Your task to perform on an android device: turn on javascript in the chrome app Image 0: 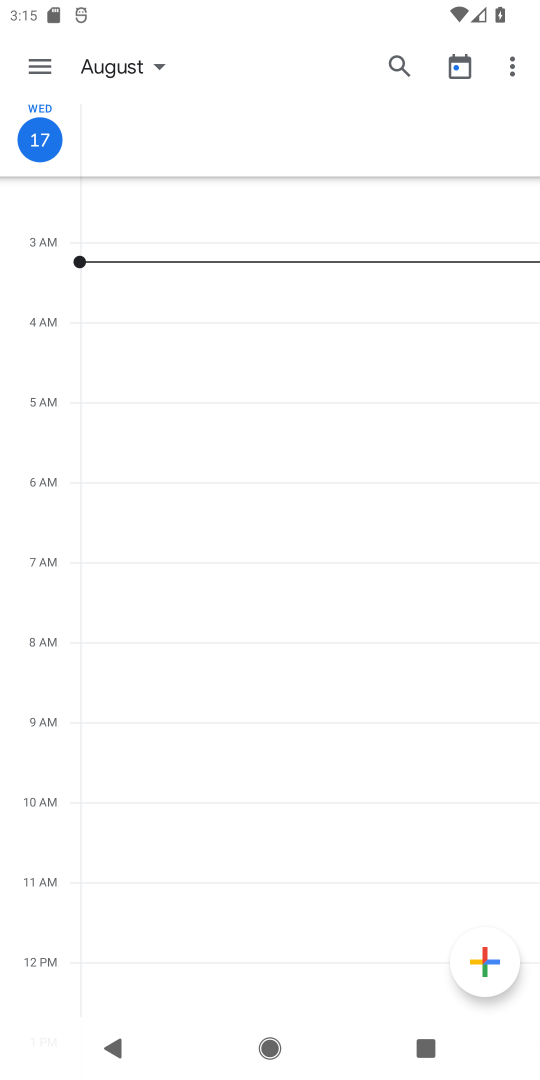
Step 0: press home button
Your task to perform on an android device: turn on javascript in the chrome app Image 1: 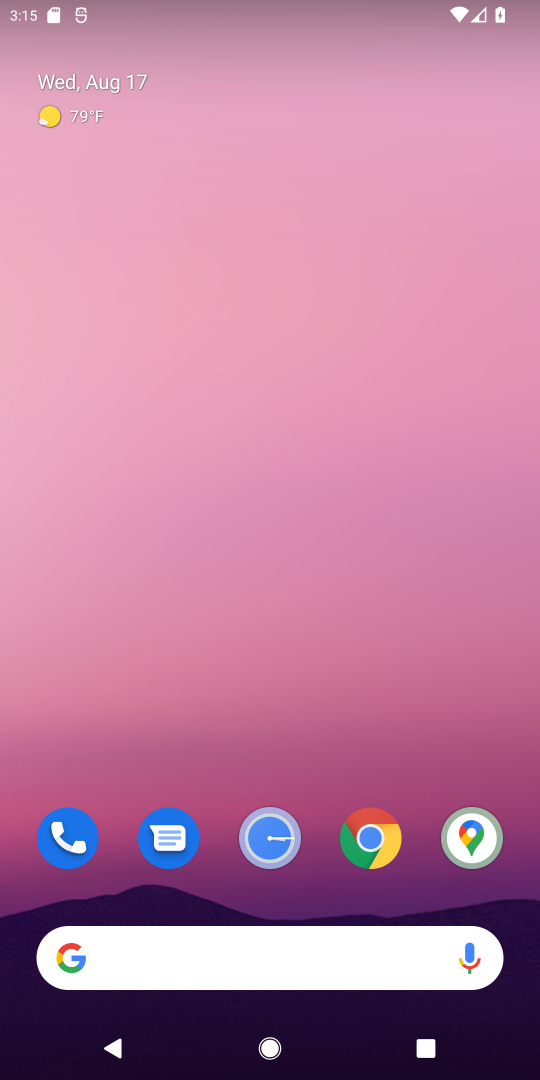
Step 1: click (340, 823)
Your task to perform on an android device: turn on javascript in the chrome app Image 2: 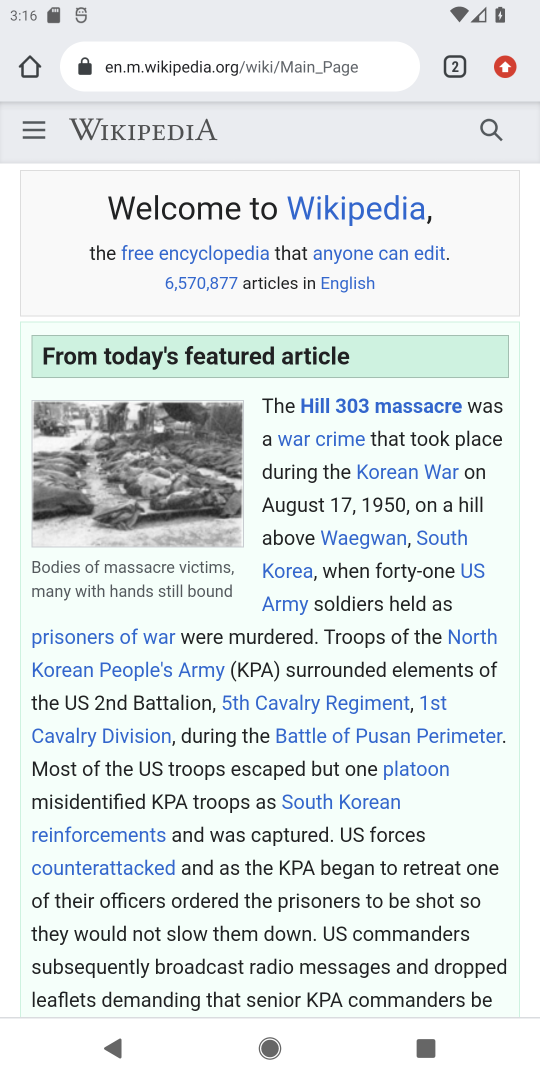
Step 2: click (507, 71)
Your task to perform on an android device: turn on javascript in the chrome app Image 3: 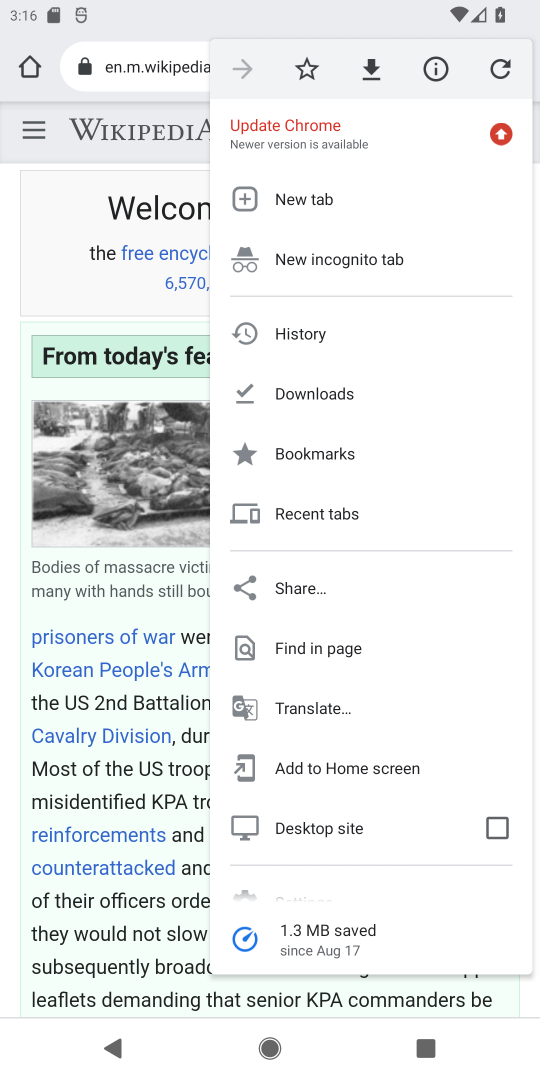
Step 3: drag from (399, 897) to (321, 448)
Your task to perform on an android device: turn on javascript in the chrome app Image 4: 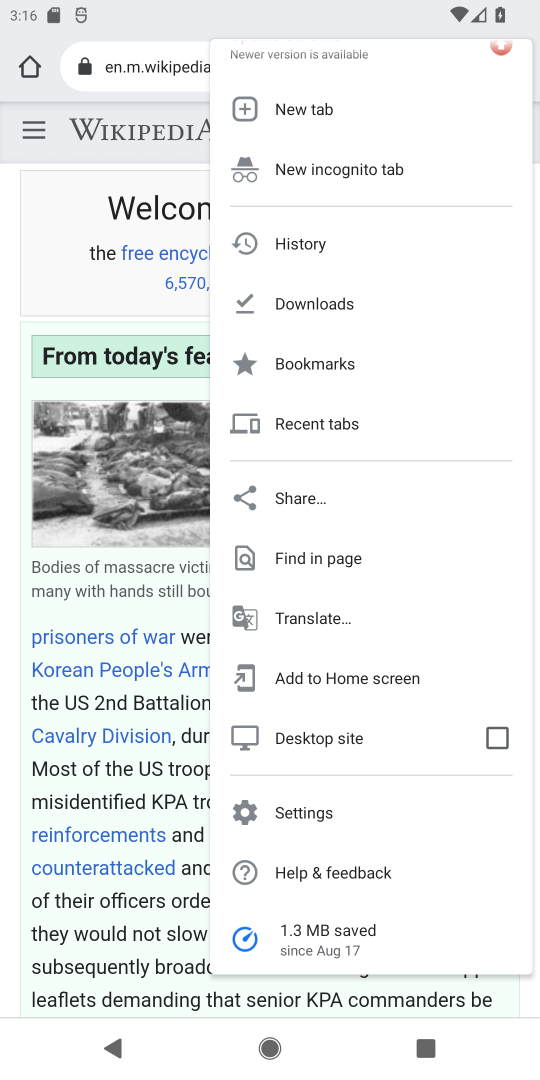
Step 4: click (313, 810)
Your task to perform on an android device: turn on javascript in the chrome app Image 5: 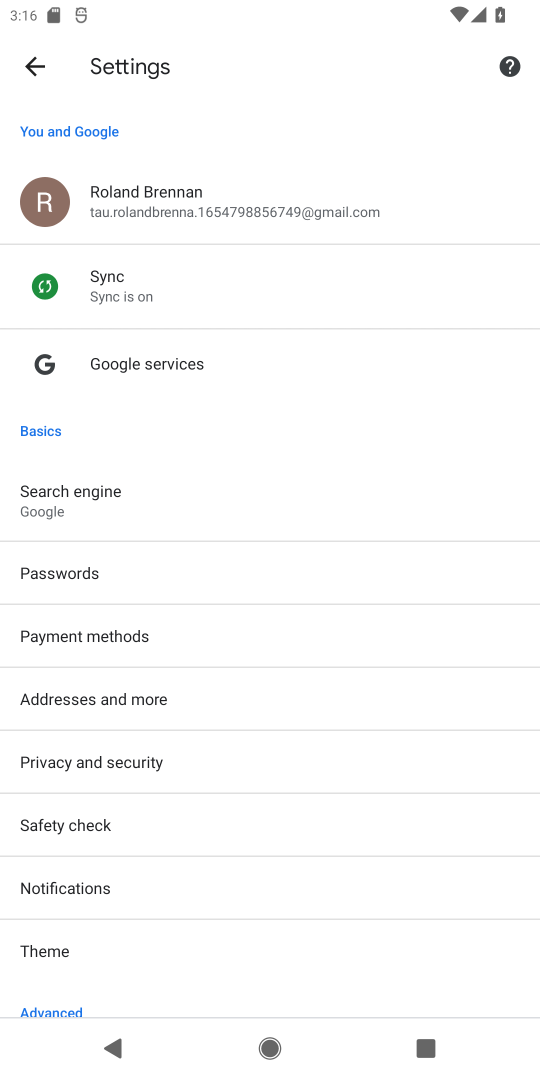
Step 5: drag from (171, 991) to (114, 501)
Your task to perform on an android device: turn on javascript in the chrome app Image 6: 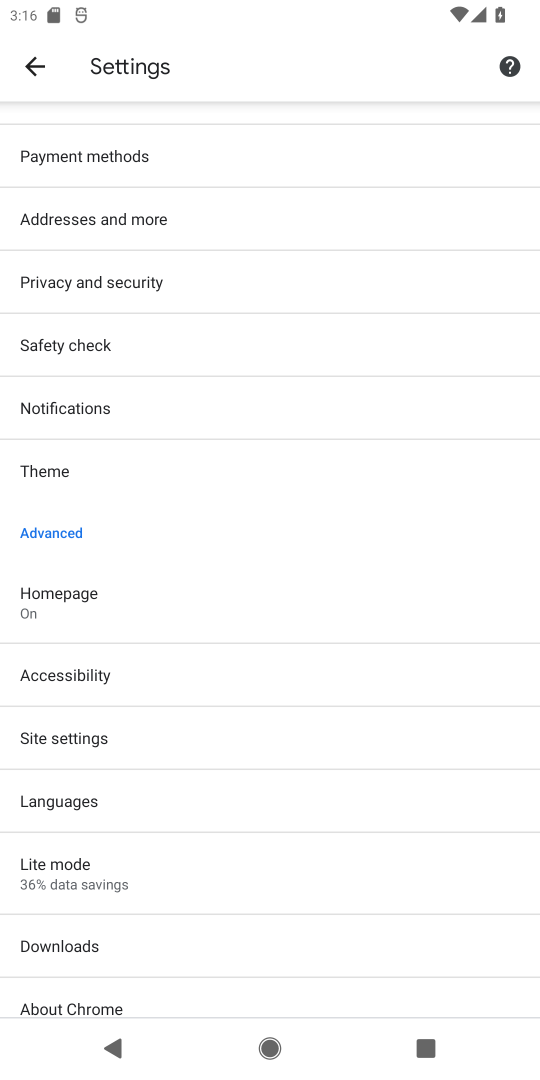
Step 6: click (95, 725)
Your task to perform on an android device: turn on javascript in the chrome app Image 7: 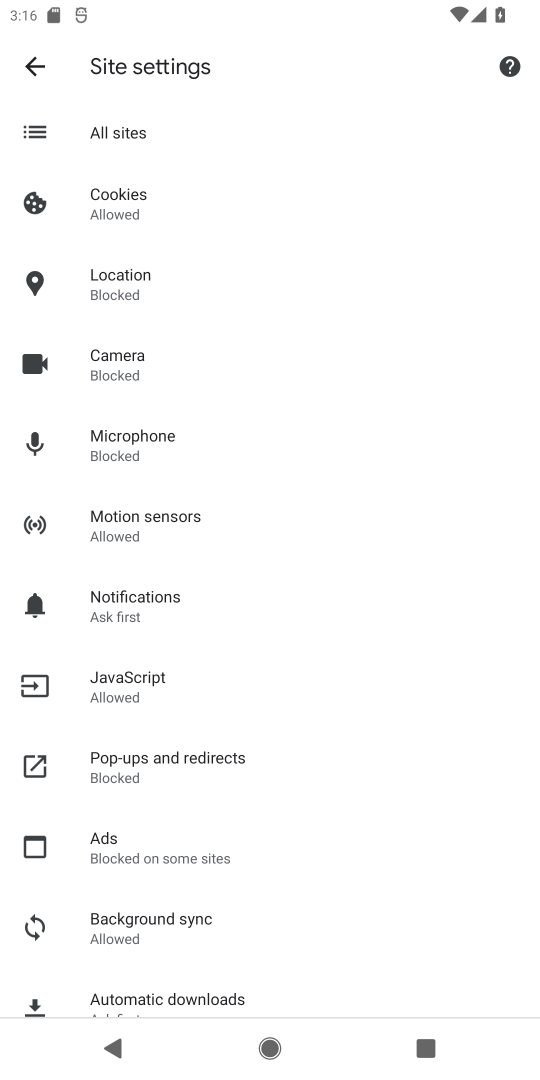
Step 7: click (105, 685)
Your task to perform on an android device: turn on javascript in the chrome app Image 8: 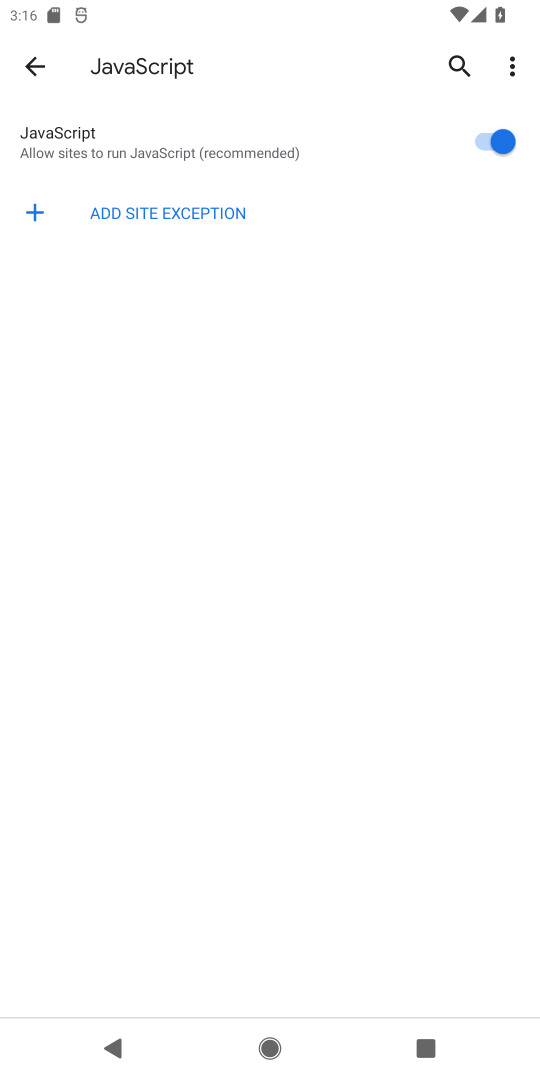
Step 8: task complete